Your task to perform on an android device: open chrome and create a bookmark for the current page Image 0: 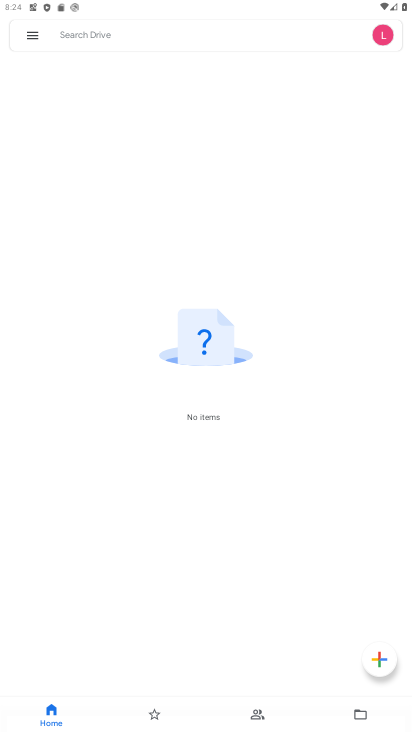
Step 0: press home button
Your task to perform on an android device: open chrome and create a bookmark for the current page Image 1: 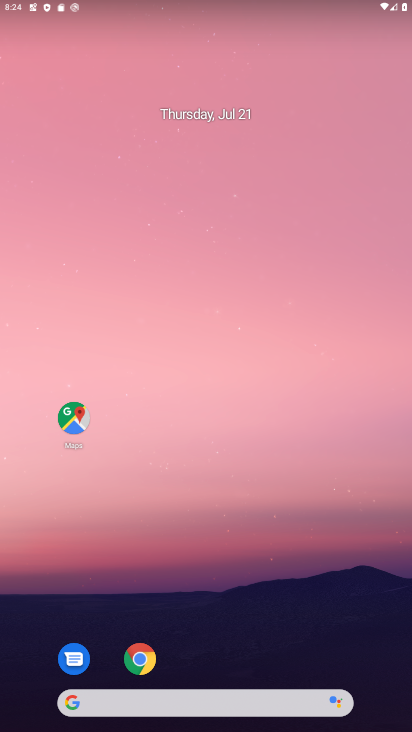
Step 1: drag from (215, 660) to (217, 187)
Your task to perform on an android device: open chrome and create a bookmark for the current page Image 2: 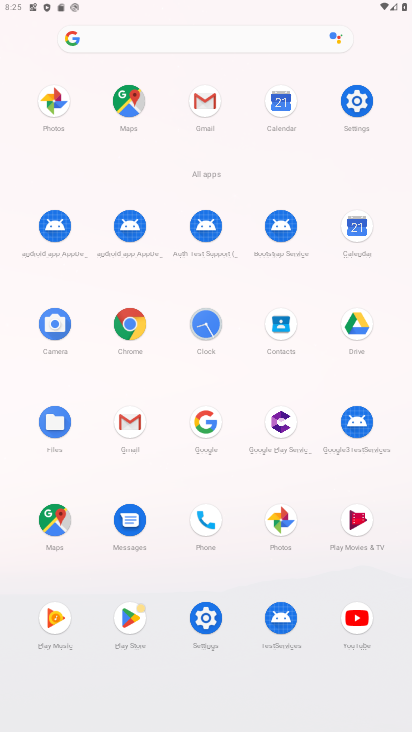
Step 2: click (125, 321)
Your task to perform on an android device: open chrome and create a bookmark for the current page Image 3: 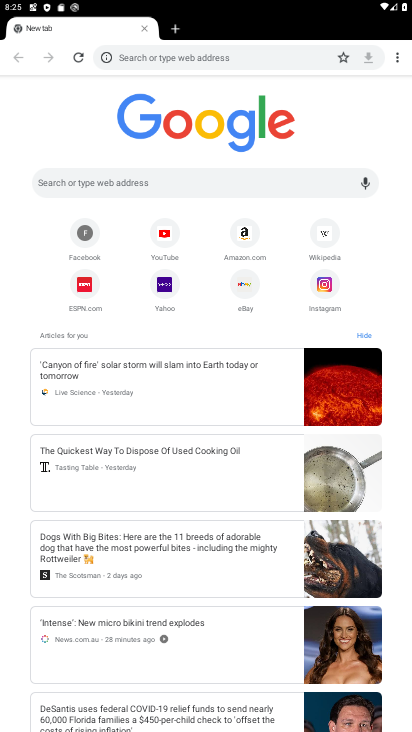
Step 3: click (396, 53)
Your task to perform on an android device: open chrome and create a bookmark for the current page Image 4: 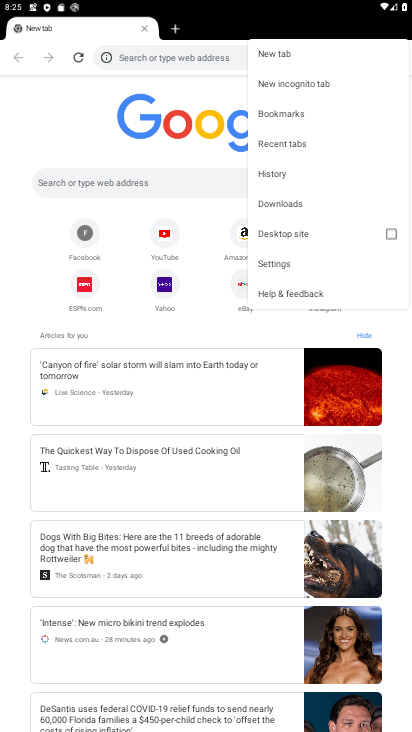
Step 4: click (99, 125)
Your task to perform on an android device: open chrome and create a bookmark for the current page Image 5: 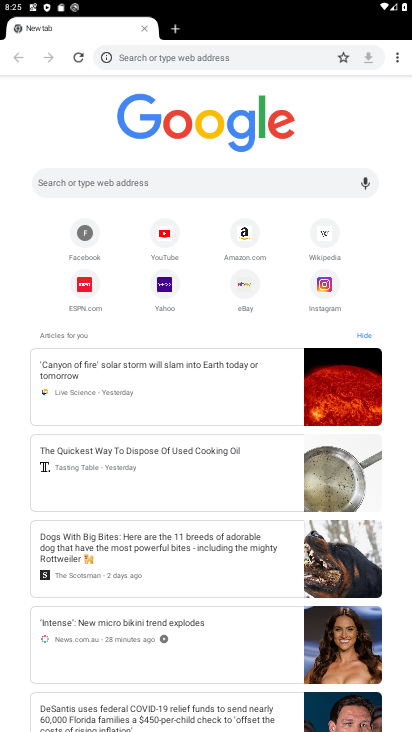
Step 5: click (344, 58)
Your task to perform on an android device: open chrome and create a bookmark for the current page Image 6: 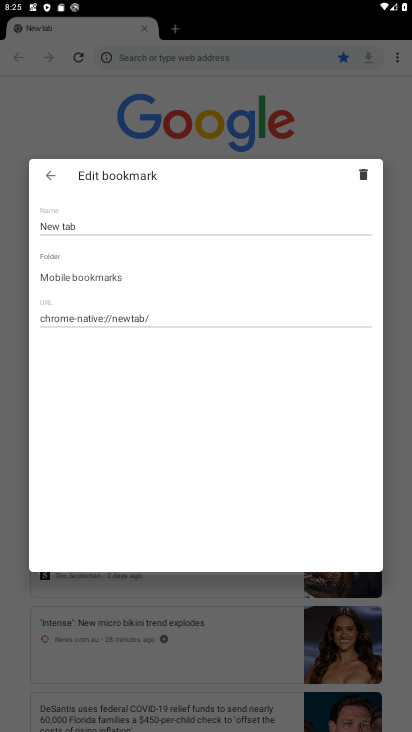
Step 6: click (204, 643)
Your task to perform on an android device: open chrome and create a bookmark for the current page Image 7: 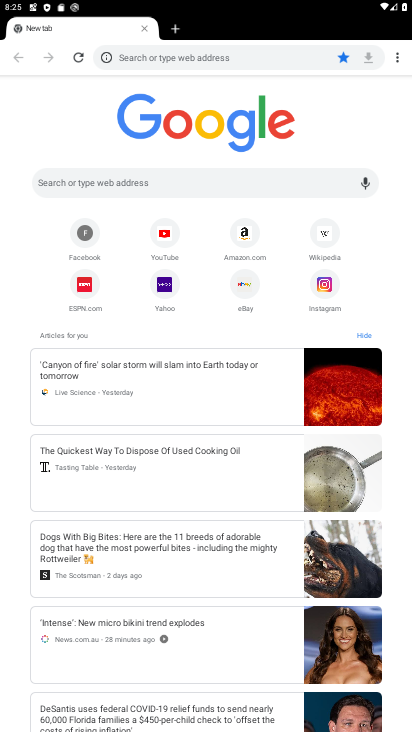
Step 7: task complete